Your task to perform on an android device: change the clock style Image 0: 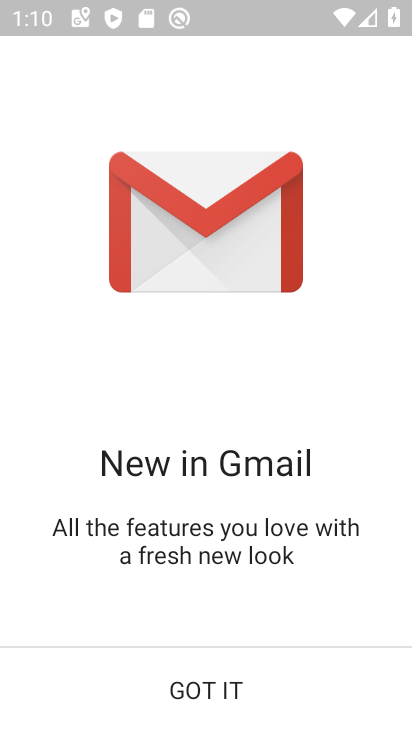
Step 0: press home button
Your task to perform on an android device: change the clock style Image 1: 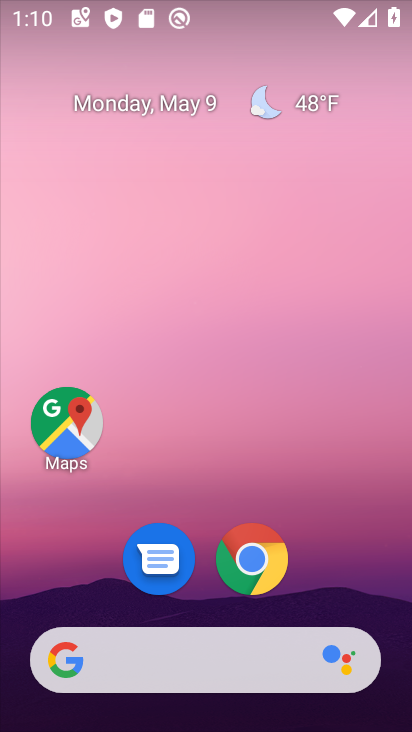
Step 1: drag from (349, 467) to (362, 212)
Your task to perform on an android device: change the clock style Image 2: 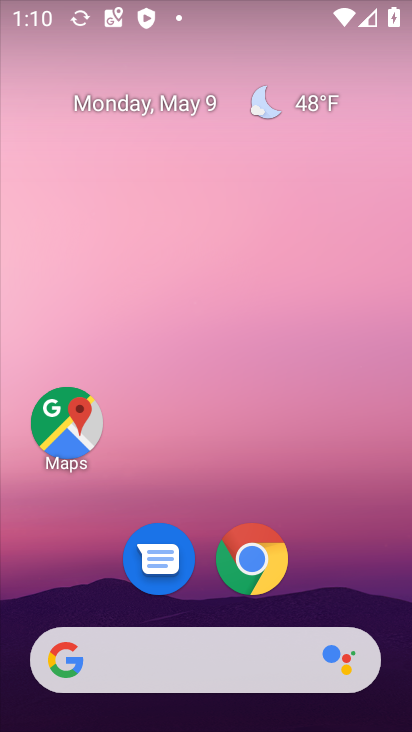
Step 2: drag from (336, 587) to (315, 275)
Your task to perform on an android device: change the clock style Image 3: 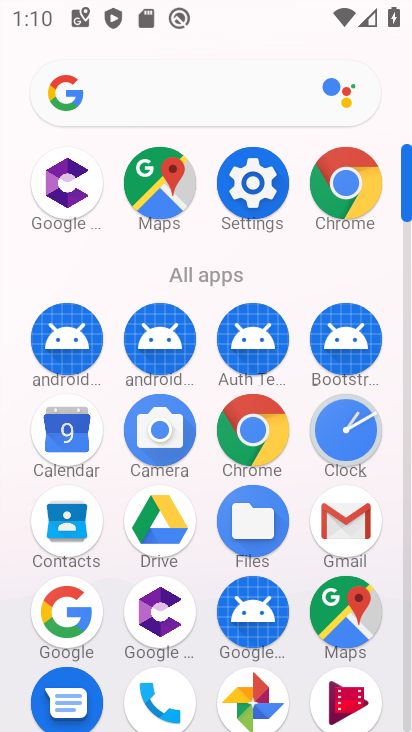
Step 3: click (338, 417)
Your task to perform on an android device: change the clock style Image 4: 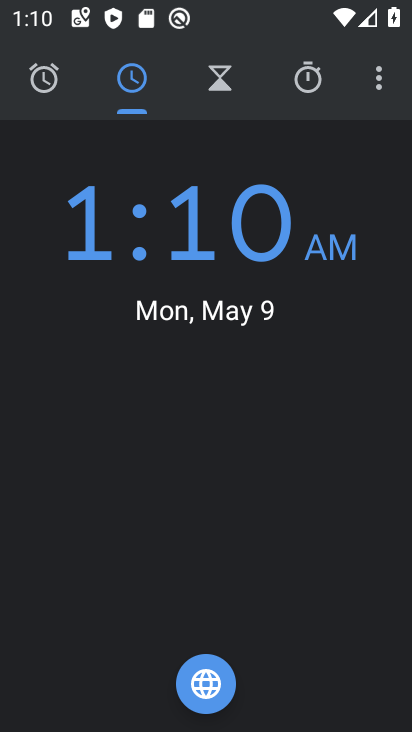
Step 4: click (376, 80)
Your task to perform on an android device: change the clock style Image 5: 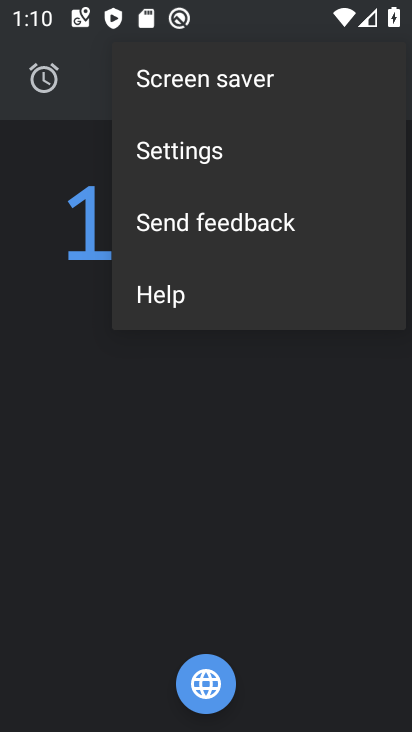
Step 5: click (192, 159)
Your task to perform on an android device: change the clock style Image 6: 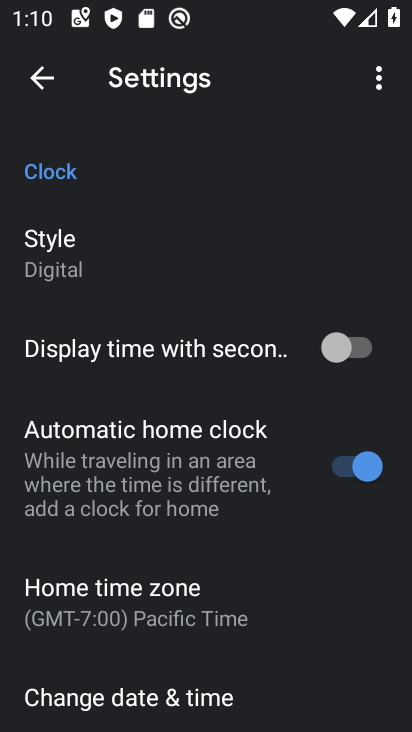
Step 6: click (85, 257)
Your task to perform on an android device: change the clock style Image 7: 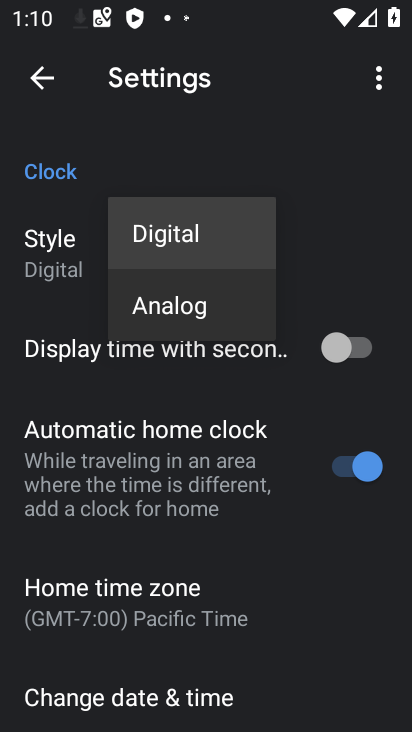
Step 7: click (142, 309)
Your task to perform on an android device: change the clock style Image 8: 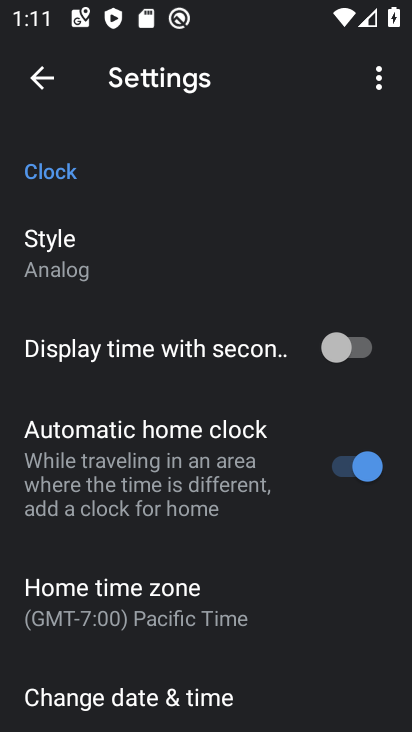
Step 8: task complete